Your task to perform on an android device: Open the phone app and click the voicemail tab. Image 0: 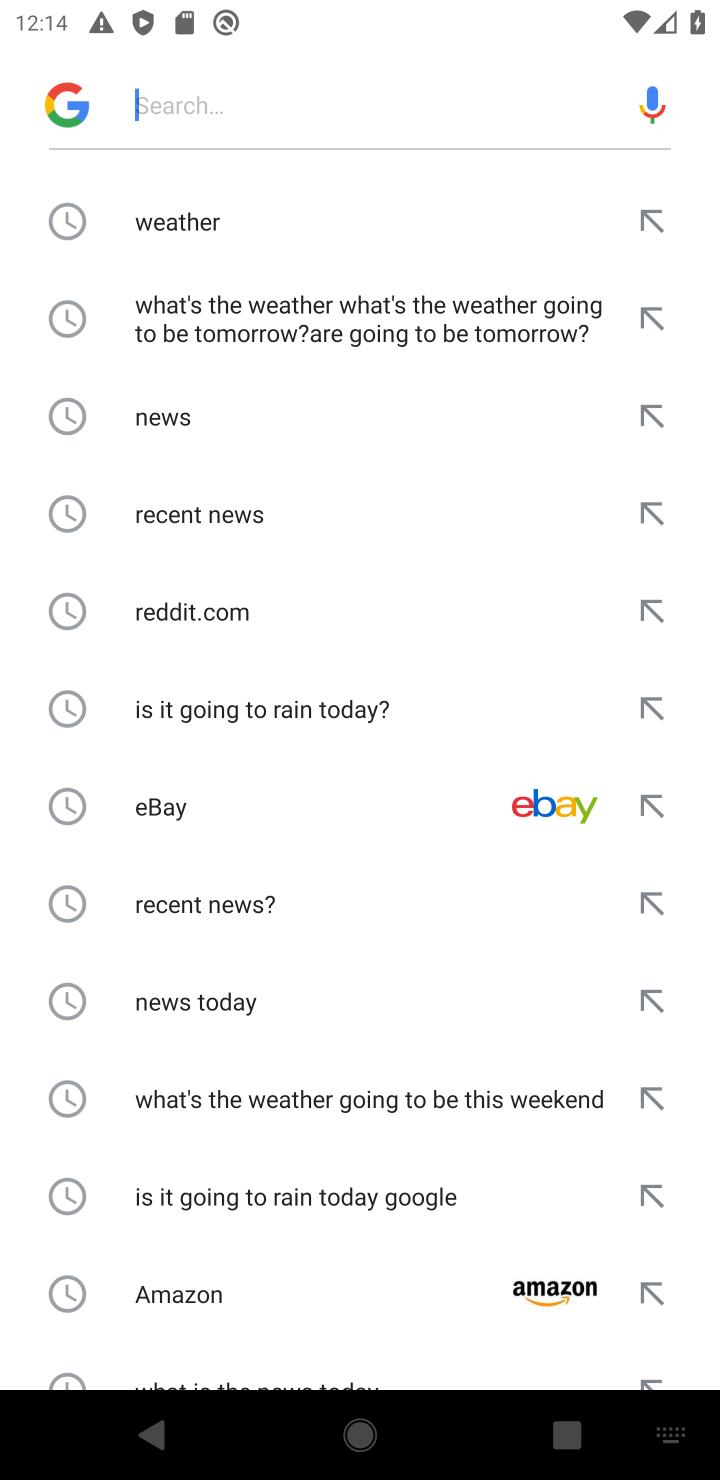
Step 0: press home button
Your task to perform on an android device: Open the phone app and click the voicemail tab. Image 1: 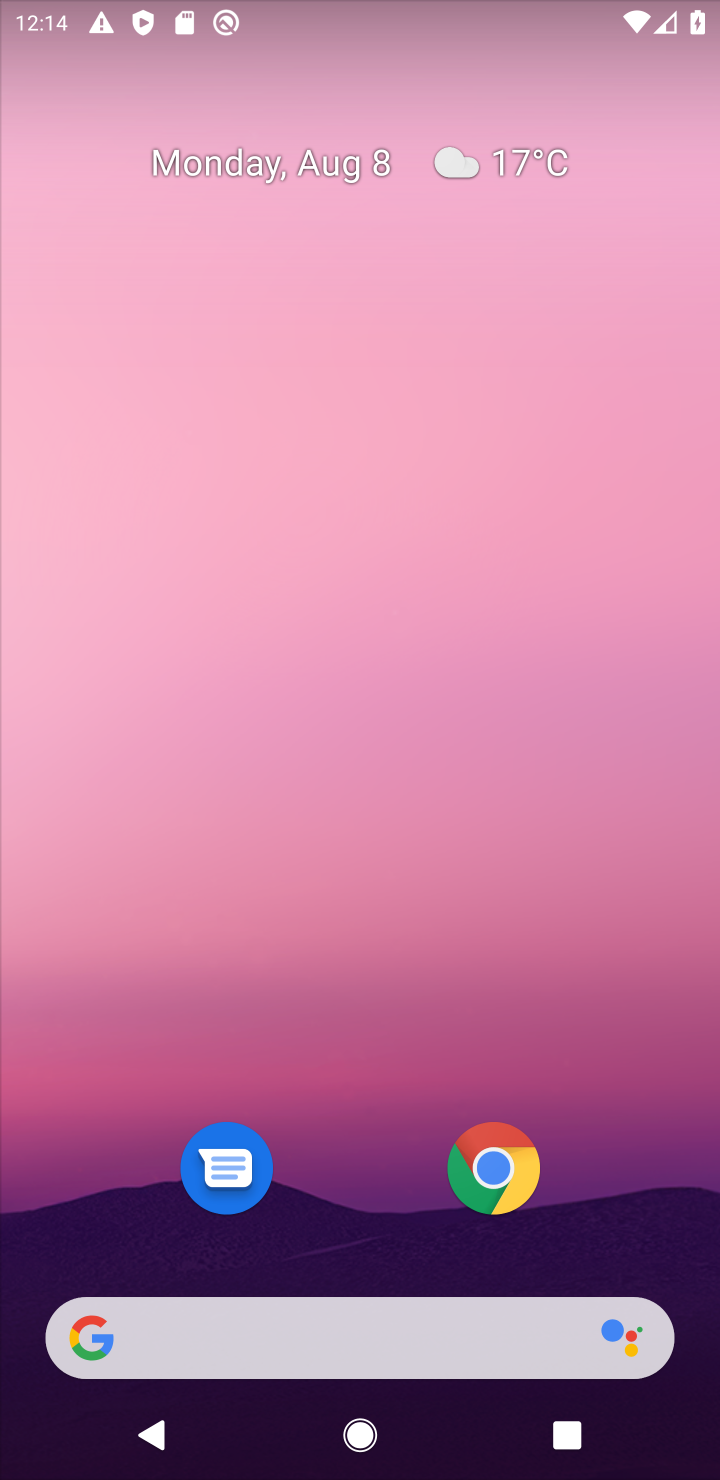
Step 1: click (34, 1470)
Your task to perform on an android device: Open the phone app and click the voicemail tab. Image 2: 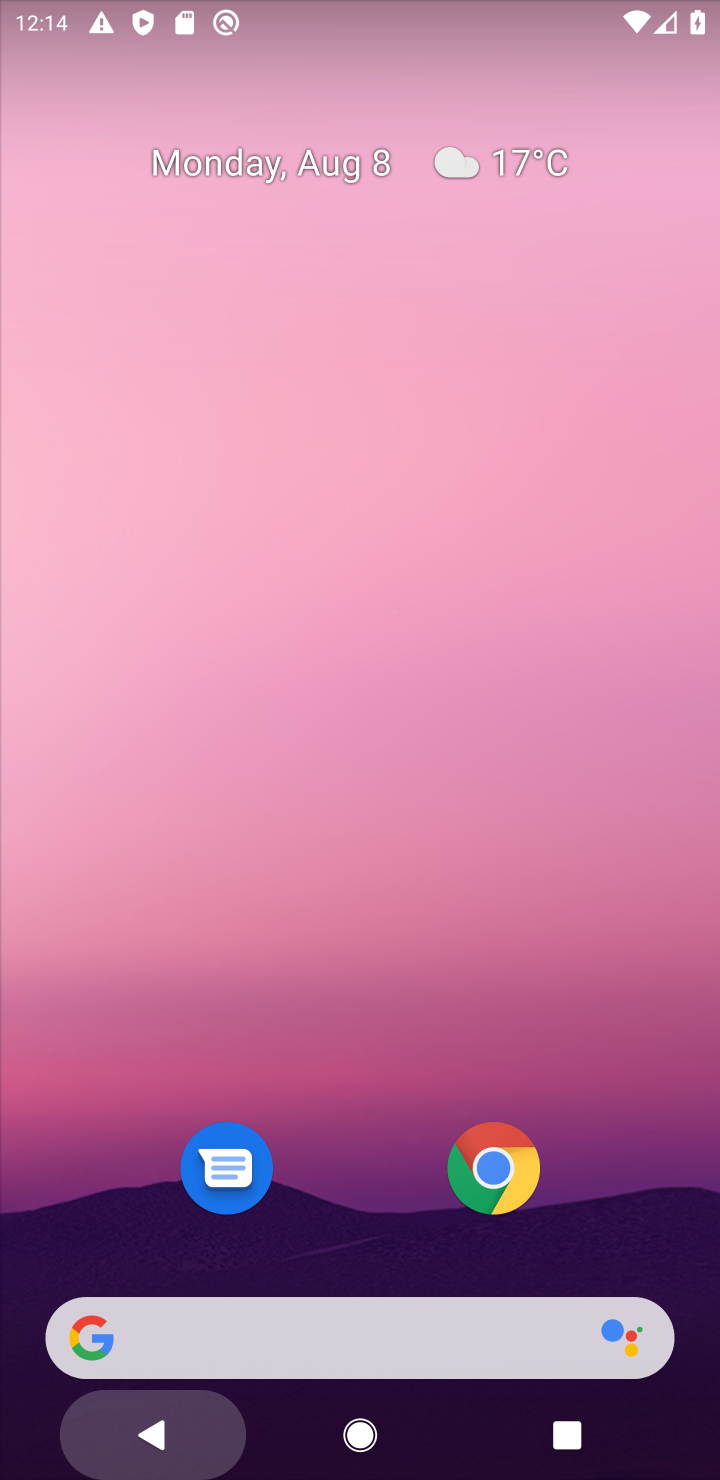
Step 2: drag from (46, 1450) to (405, 608)
Your task to perform on an android device: Open the phone app and click the voicemail tab. Image 3: 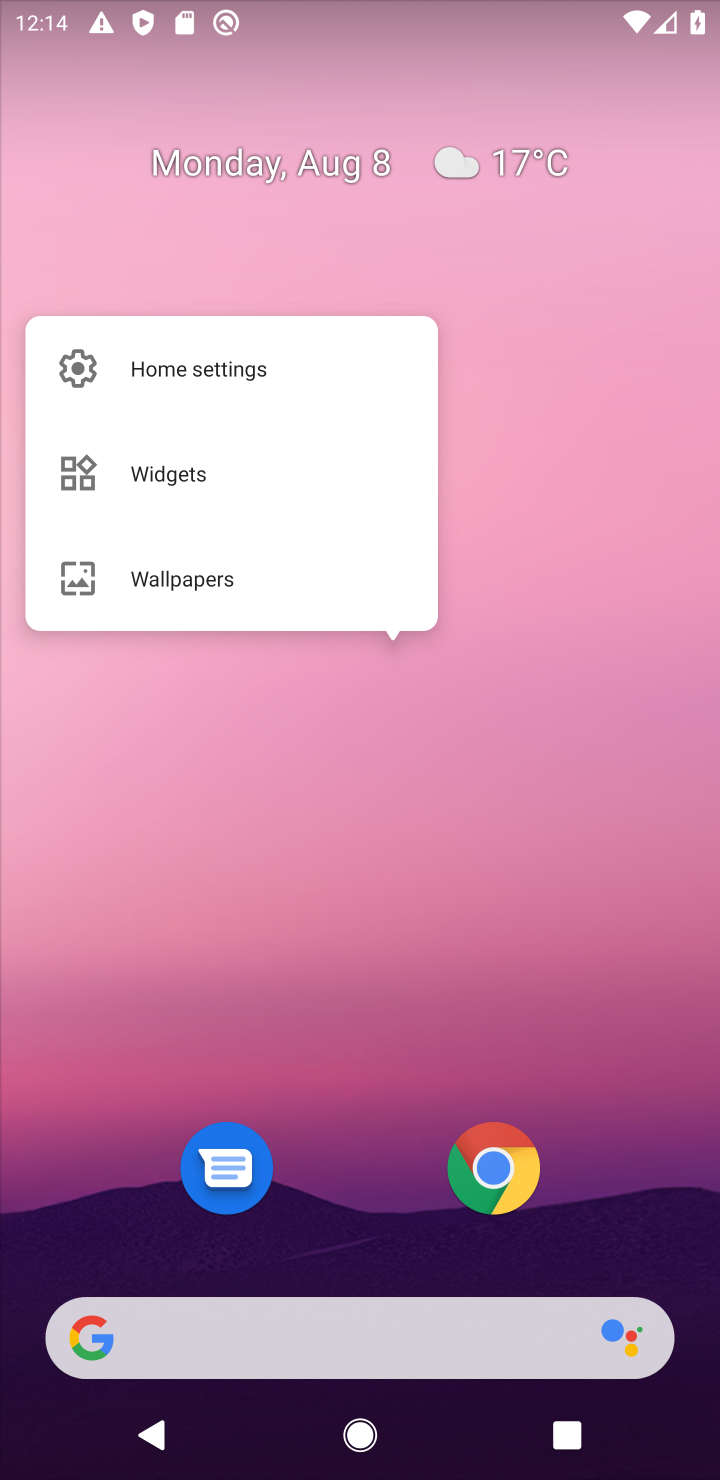
Step 3: click (274, 699)
Your task to perform on an android device: Open the phone app and click the voicemail tab. Image 4: 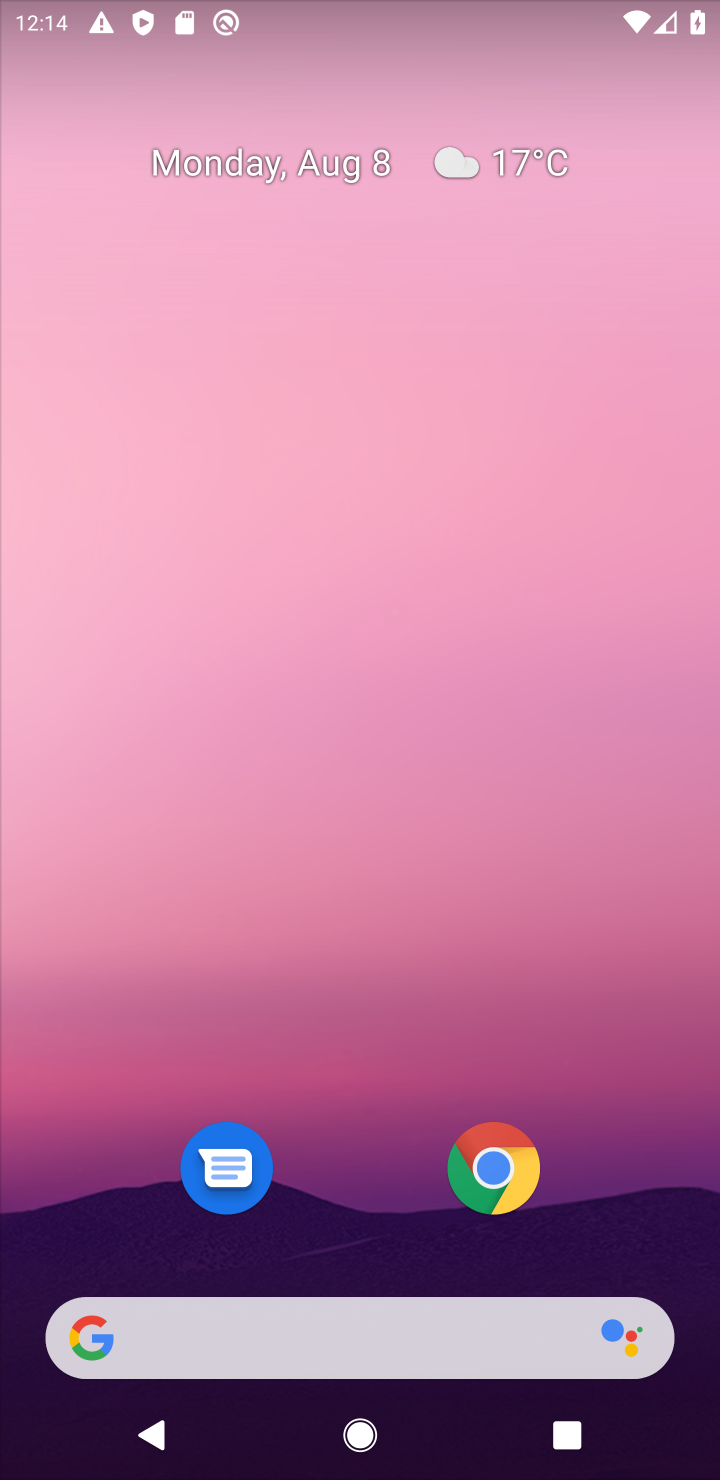
Step 4: click (44, 1401)
Your task to perform on an android device: Open the phone app and click the voicemail tab. Image 5: 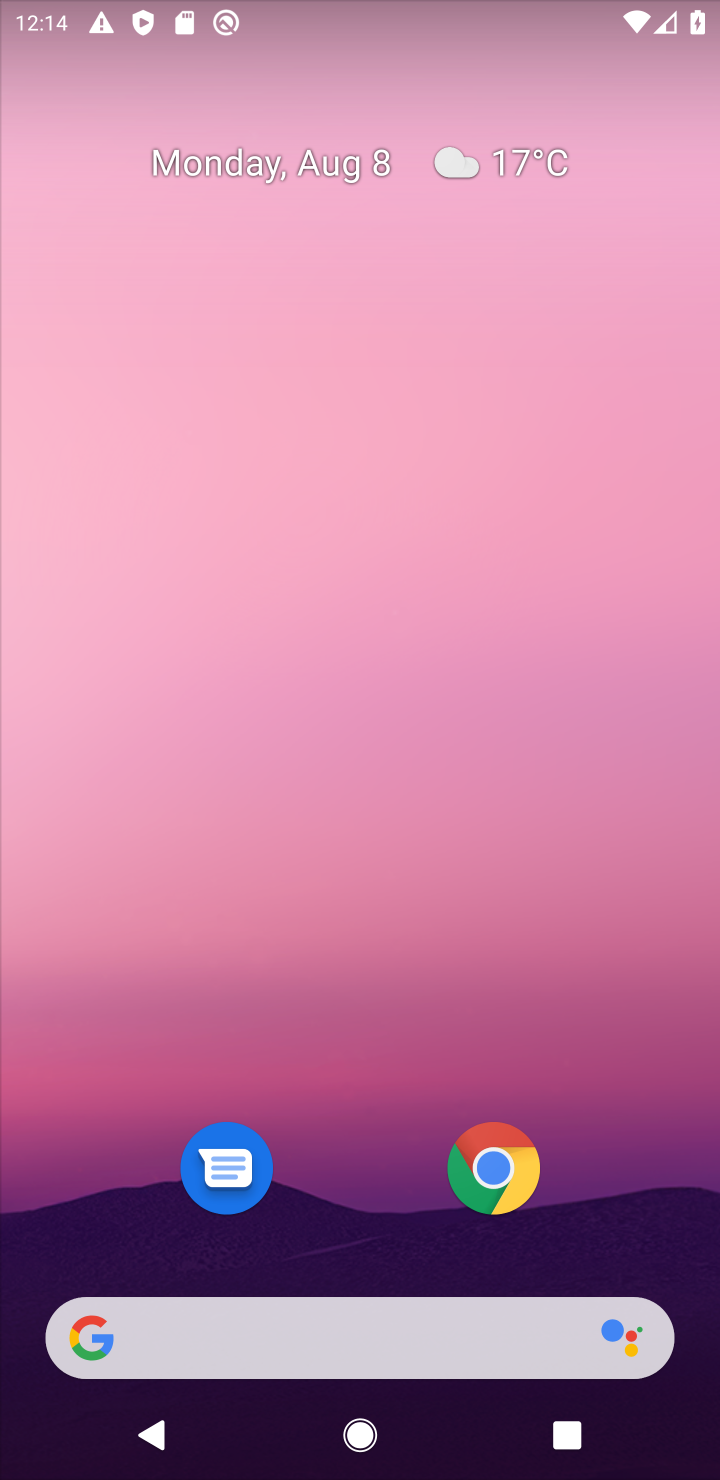
Step 5: task complete